Your task to perform on an android device: Play the new Katy Perry video on YouTube Image 0: 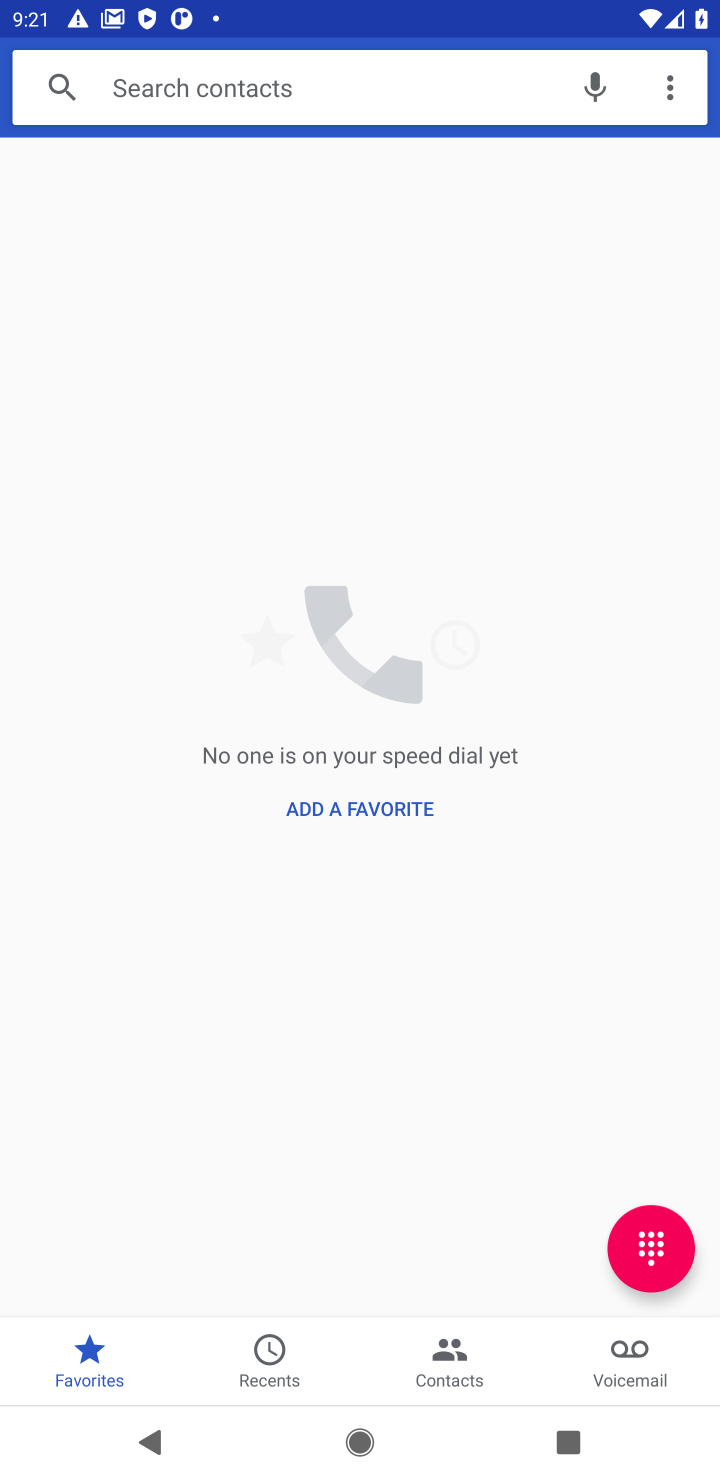
Step 0: press home button
Your task to perform on an android device: Play the new Katy Perry video on YouTube Image 1: 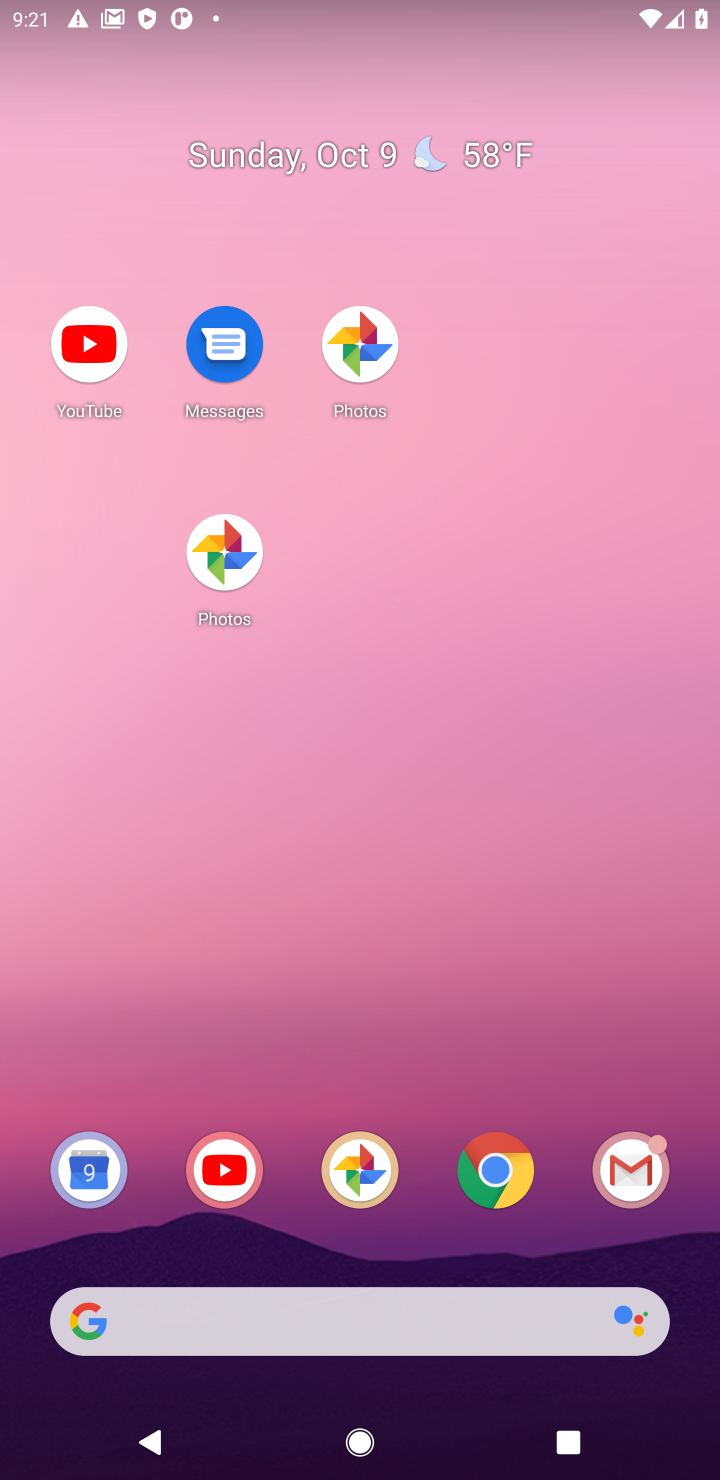
Step 1: drag from (338, 1026) to (153, 269)
Your task to perform on an android device: Play the new Katy Perry video on YouTube Image 2: 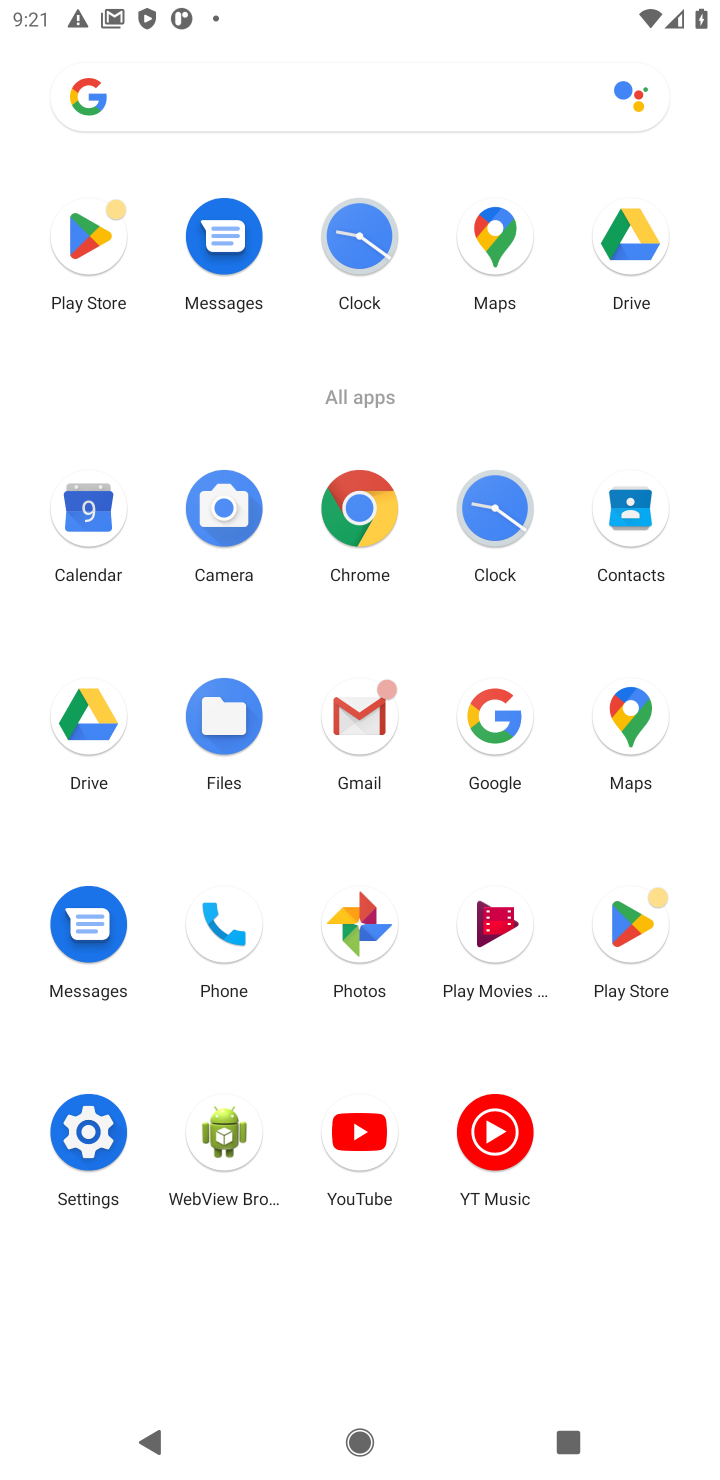
Step 2: click (343, 1138)
Your task to perform on an android device: Play the new Katy Perry video on YouTube Image 3: 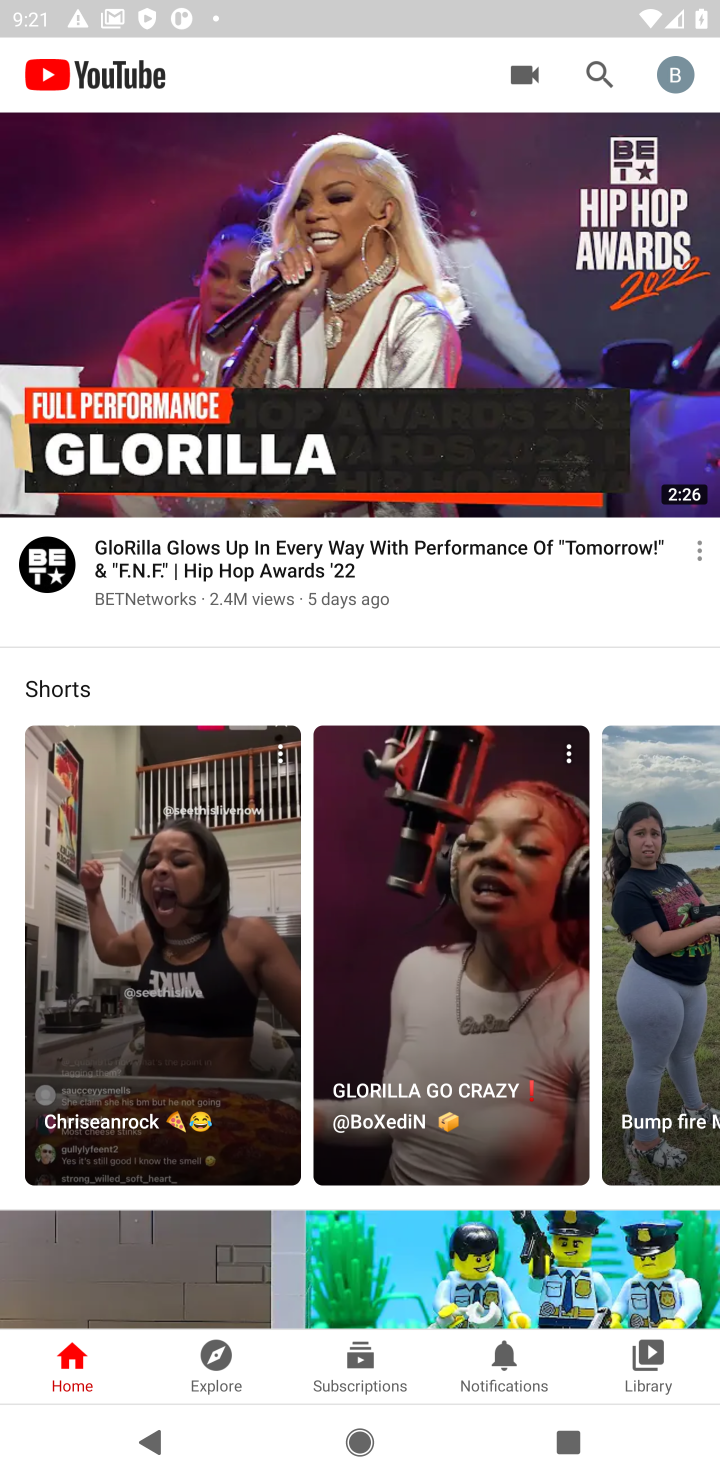
Step 3: click (590, 67)
Your task to perform on an android device: Play the new Katy Perry video on YouTube Image 4: 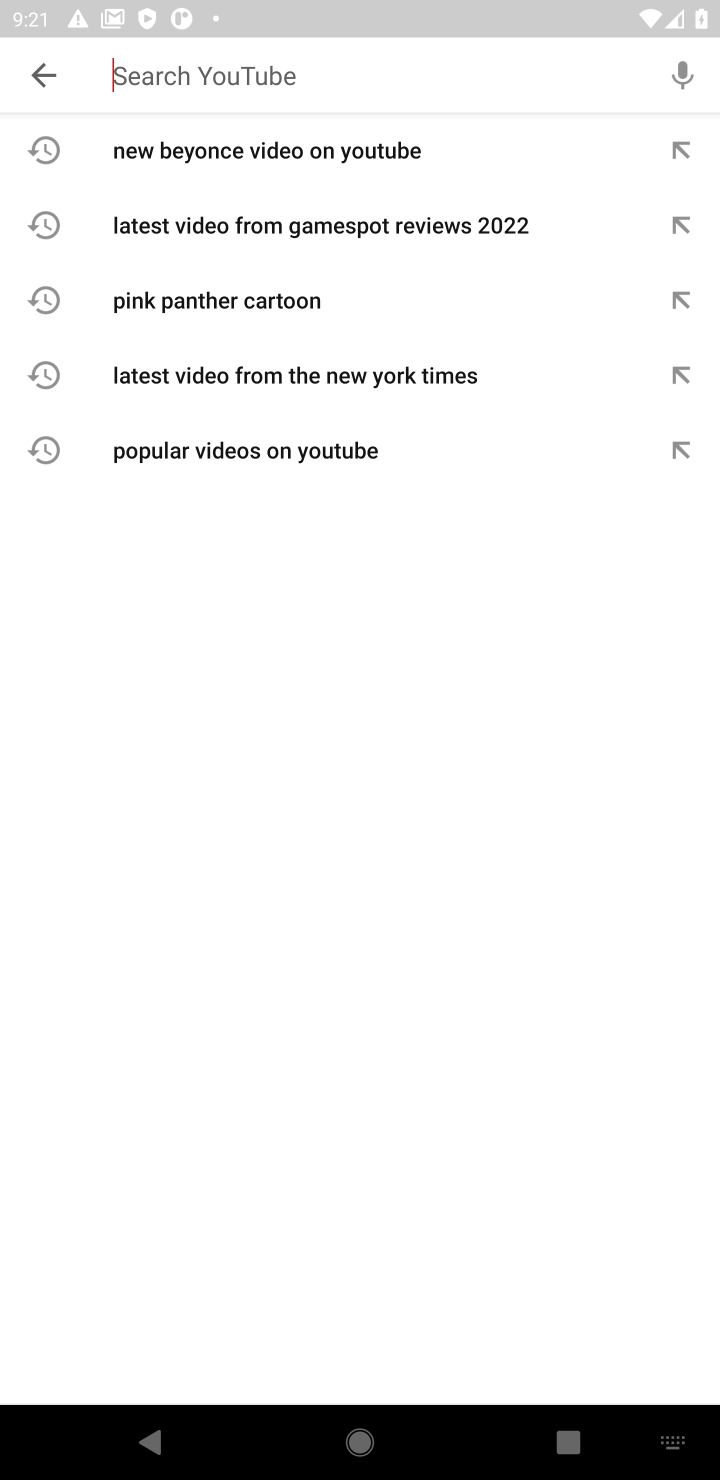
Step 4: type "Play the new Katy Perry video on YouTube"
Your task to perform on an android device: Play the new Katy Perry video on YouTube Image 5: 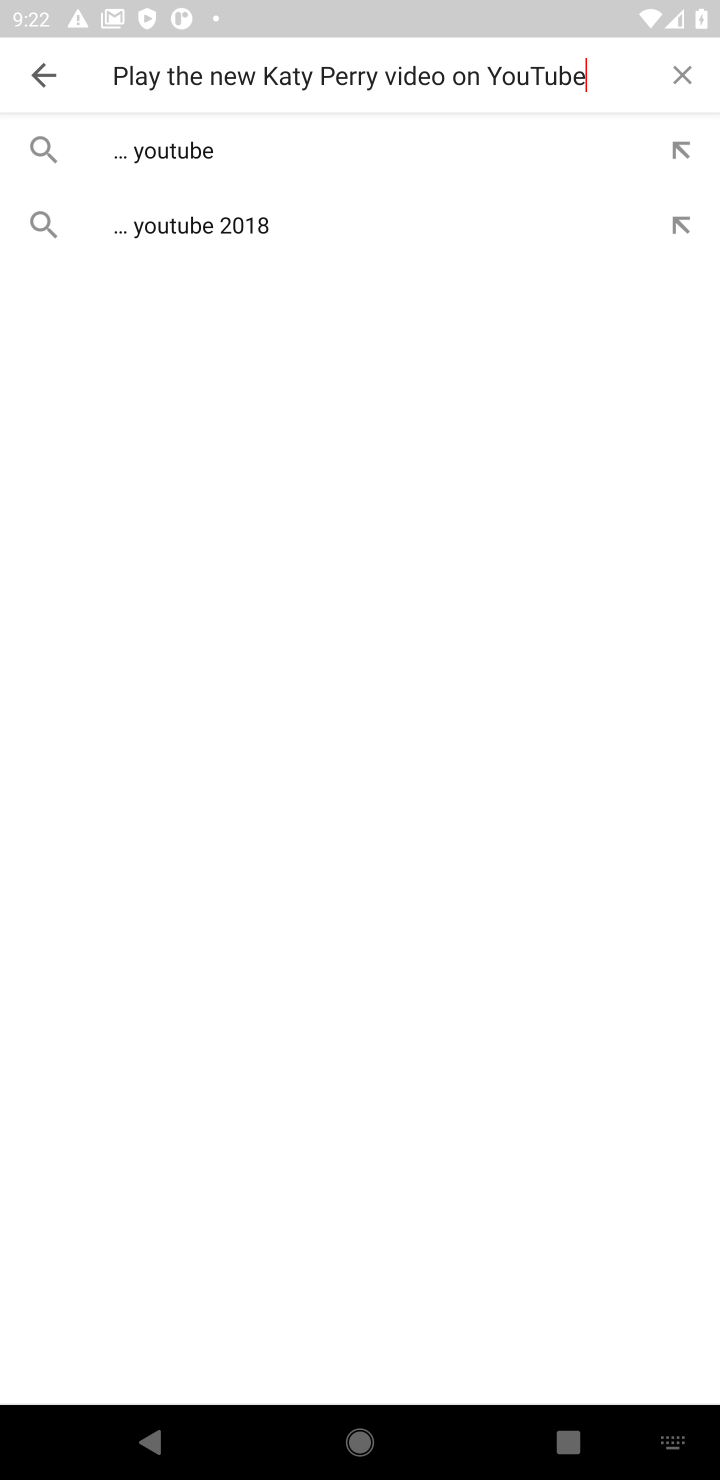
Step 5: click (181, 153)
Your task to perform on an android device: Play the new Katy Perry video on YouTube Image 6: 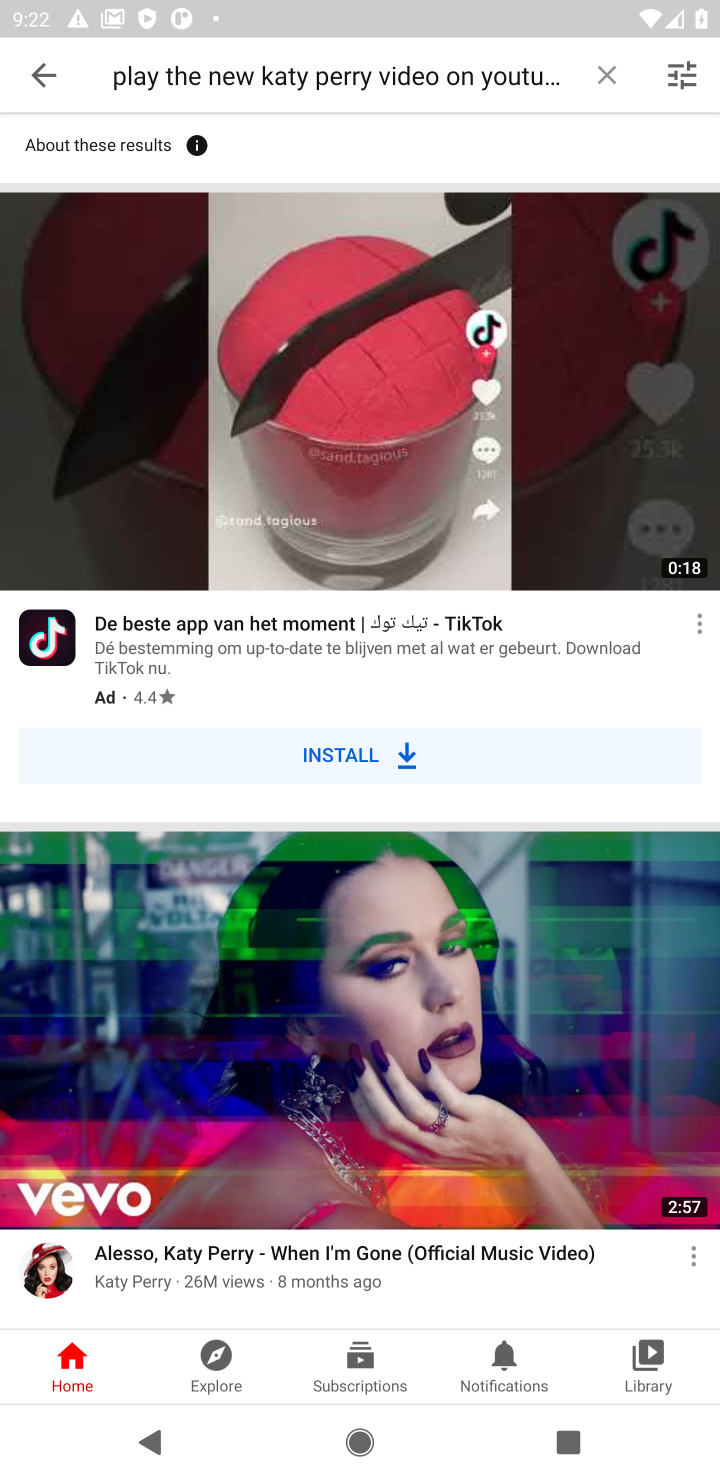
Step 6: click (236, 49)
Your task to perform on an android device: Play the new Katy Perry video on YouTube Image 7: 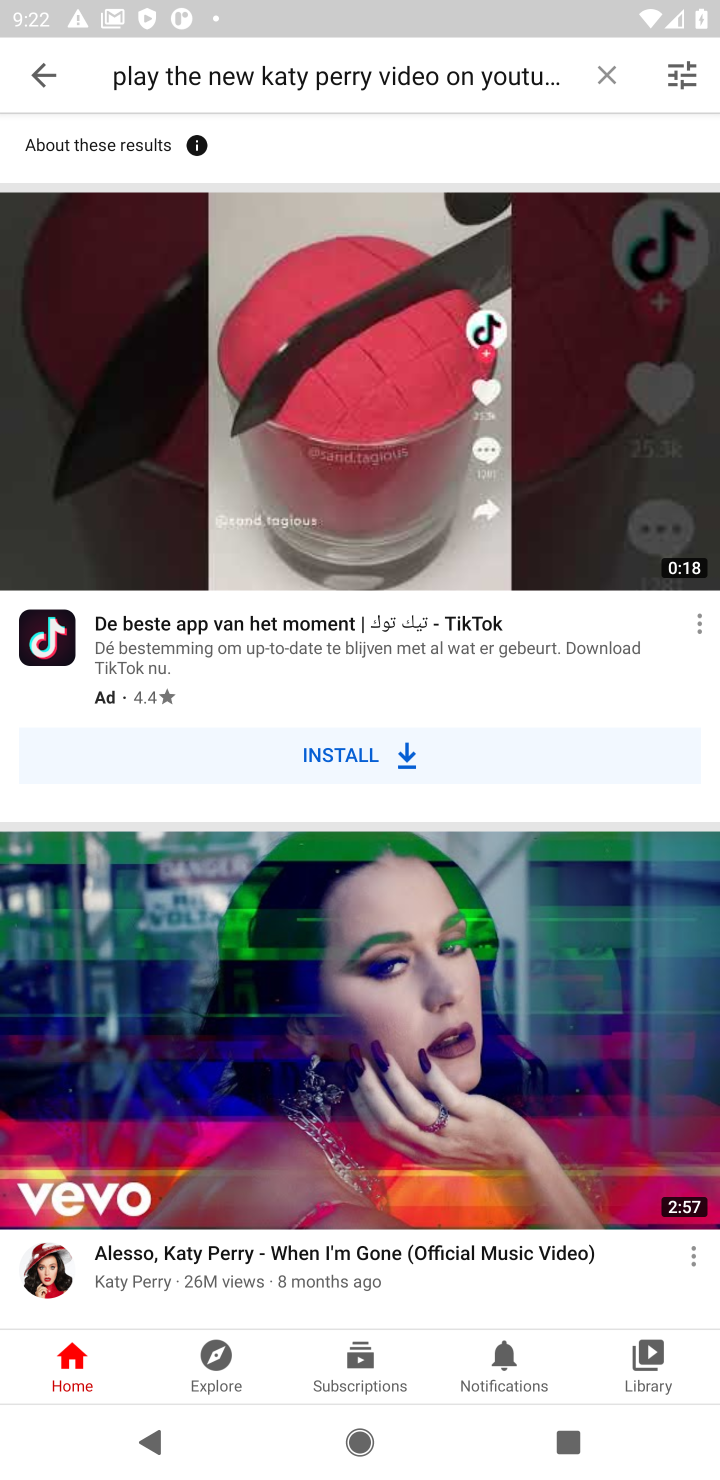
Step 7: task complete